Your task to perform on an android device: change the clock style Image 0: 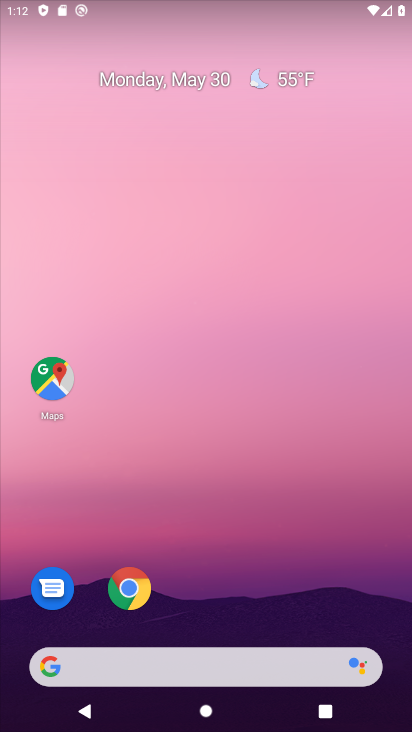
Step 0: drag from (384, 625) to (270, 122)
Your task to perform on an android device: change the clock style Image 1: 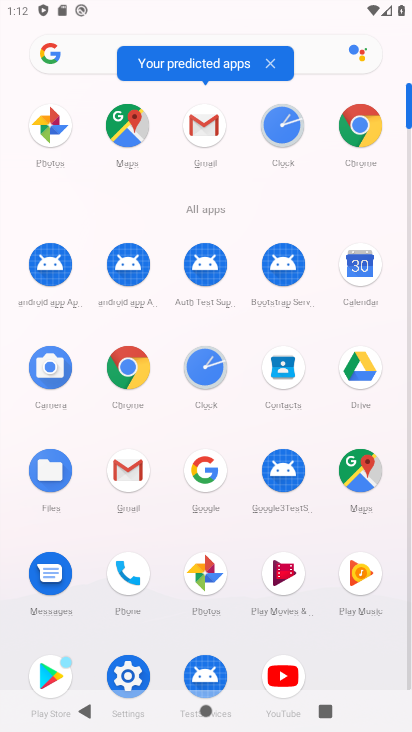
Step 1: click (203, 368)
Your task to perform on an android device: change the clock style Image 2: 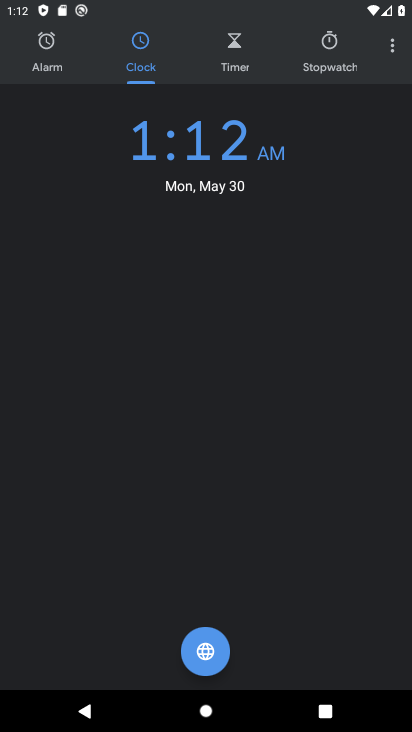
Step 2: click (395, 53)
Your task to perform on an android device: change the clock style Image 3: 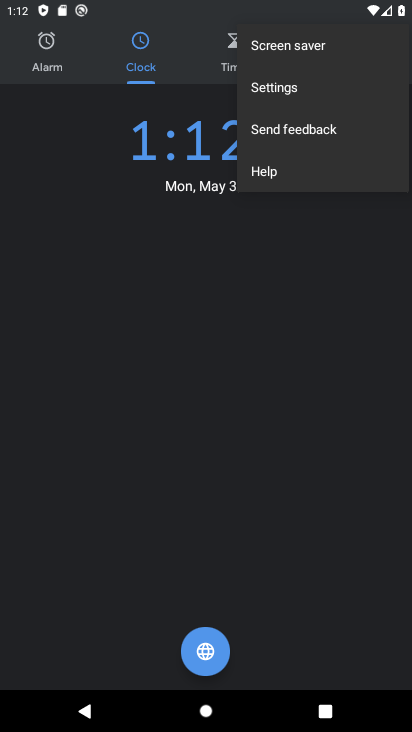
Step 3: click (280, 88)
Your task to perform on an android device: change the clock style Image 4: 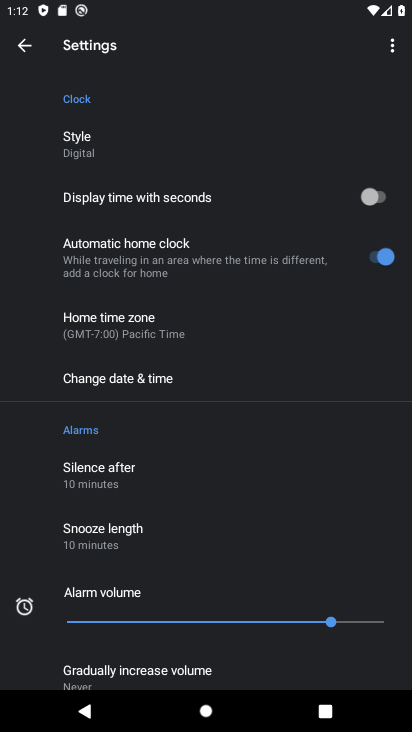
Step 4: click (81, 151)
Your task to perform on an android device: change the clock style Image 5: 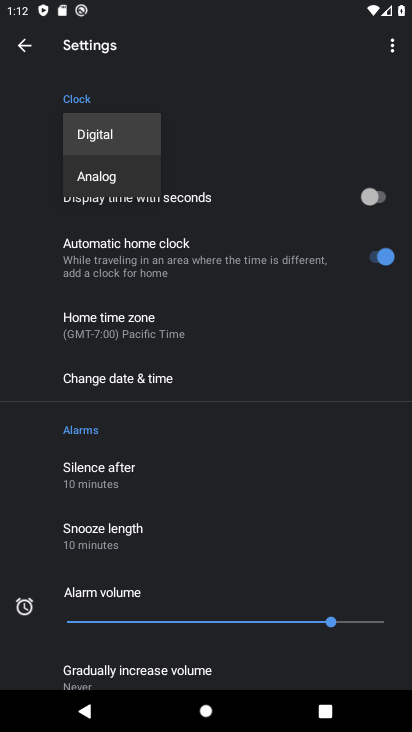
Step 5: click (94, 183)
Your task to perform on an android device: change the clock style Image 6: 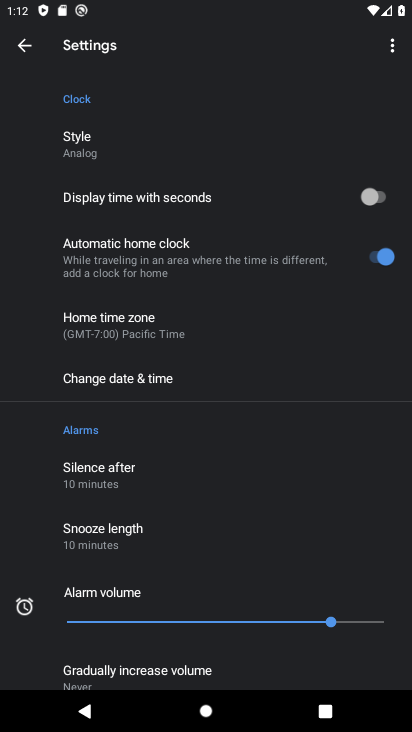
Step 6: task complete